Your task to perform on an android device: toggle wifi Image 0: 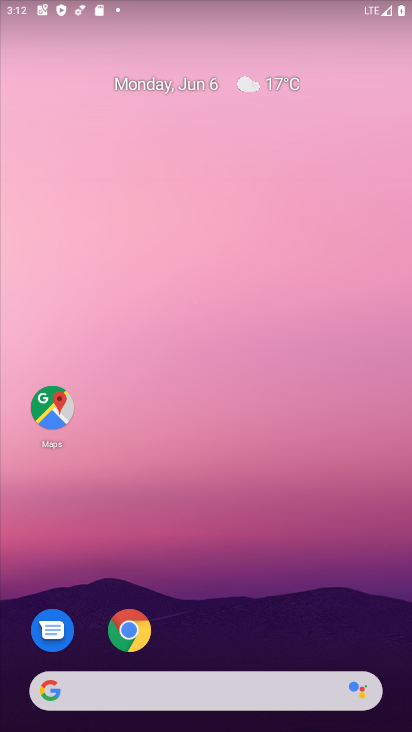
Step 0: drag from (97, 6) to (287, 499)
Your task to perform on an android device: toggle wifi Image 1: 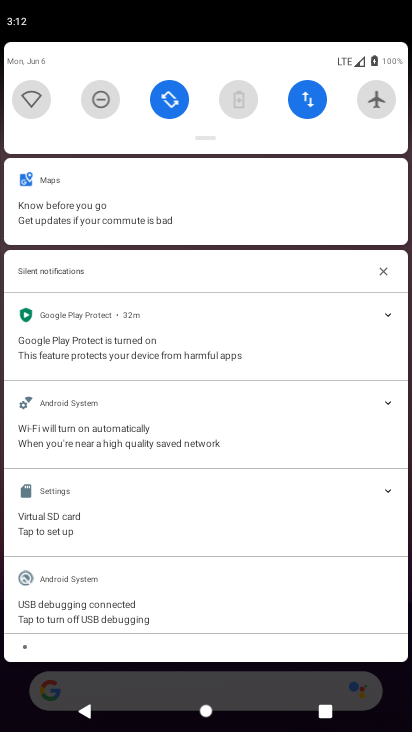
Step 1: click (29, 92)
Your task to perform on an android device: toggle wifi Image 2: 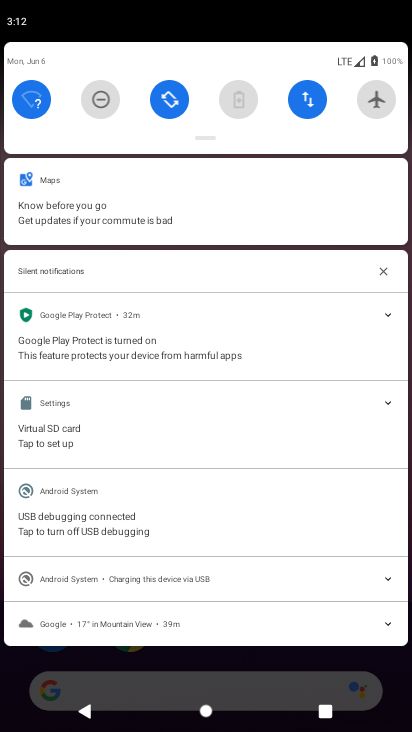
Step 2: task complete